Your task to perform on an android device: Open the web browser Image 0: 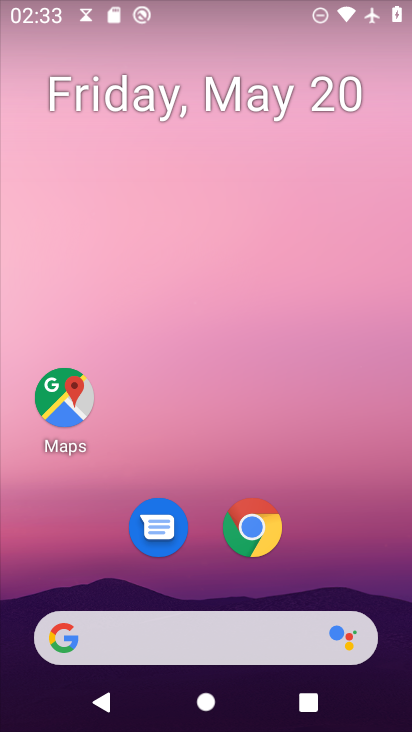
Step 0: press home button
Your task to perform on an android device: Open the web browser Image 1: 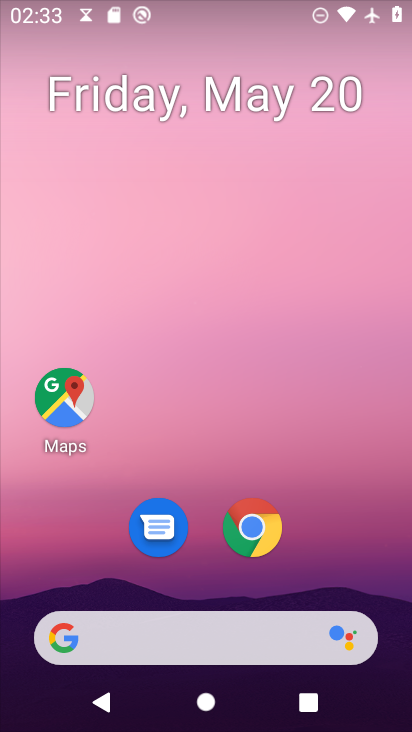
Step 1: click (245, 538)
Your task to perform on an android device: Open the web browser Image 2: 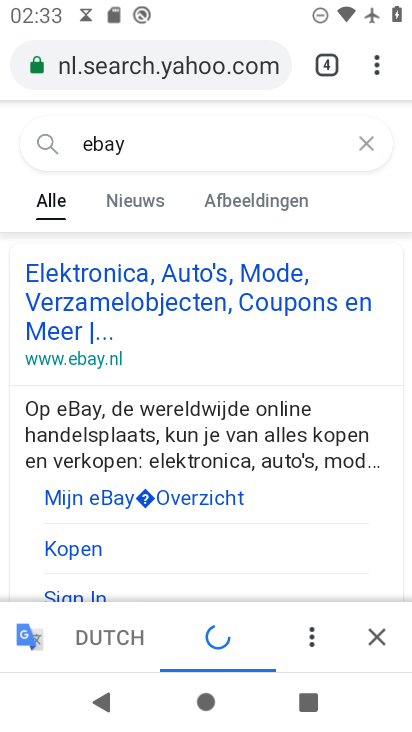
Step 2: task complete